Your task to perform on an android device: turn off notifications settings in the gmail app Image 0: 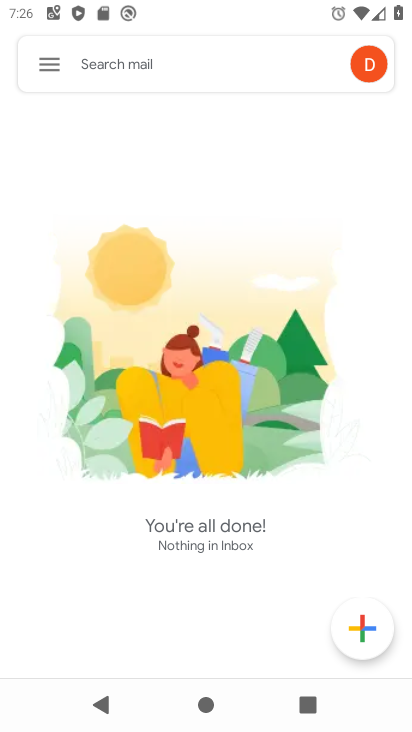
Step 0: press home button
Your task to perform on an android device: turn off notifications settings in the gmail app Image 1: 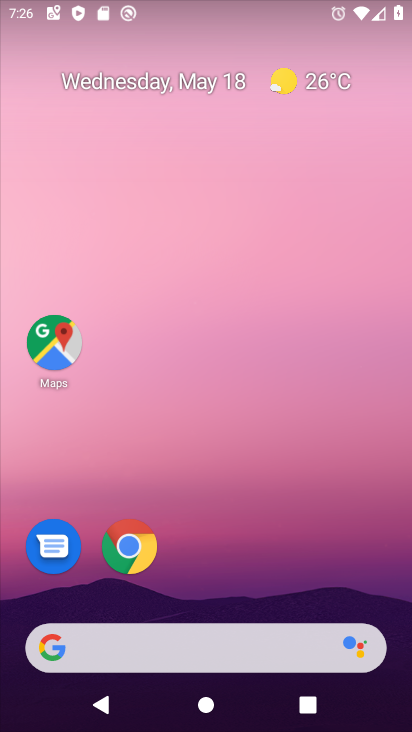
Step 1: drag from (379, 609) to (307, 60)
Your task to perform on an android device: turn off notifications settings in the gmail app Image 2: 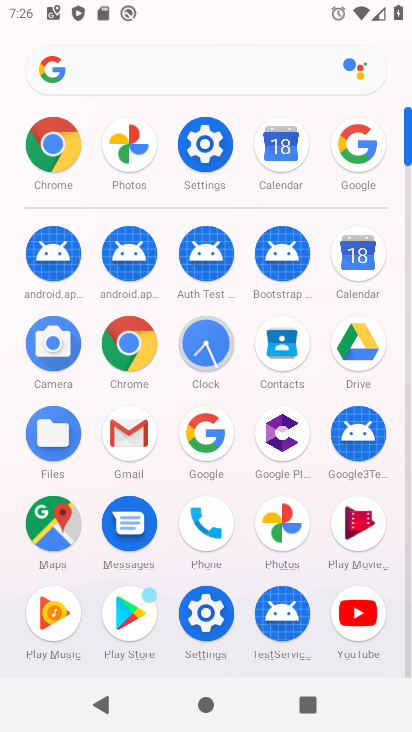
Step 2: click (127, 436)
Your task to perform on an android device: turn off notifications settings in the gmail app Image 3: 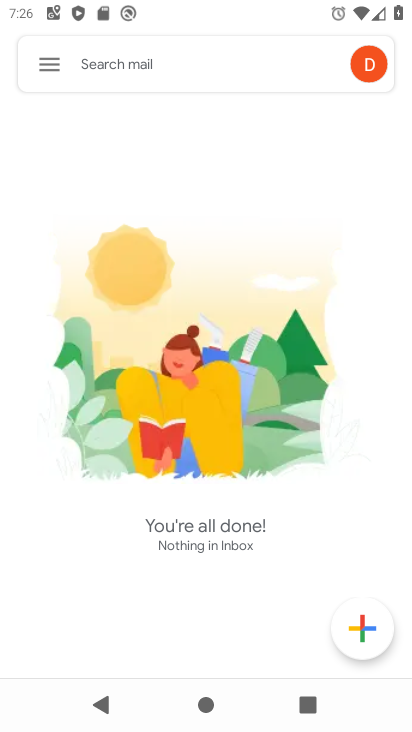
Step 3: click (59, 59)
Your task to perform on an android device: turn off notifications settings in the gmail app Image 4: 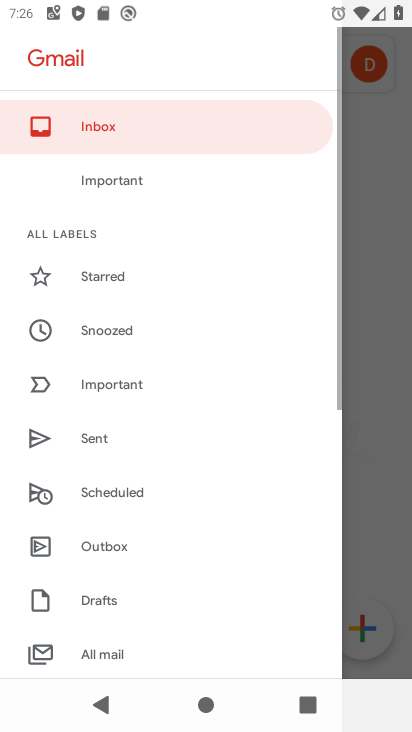
Step 4: drag from (141, 628) to (128, 55)
Your task to perform on an android device: turn off notifications settings in the gmail app Image 5: 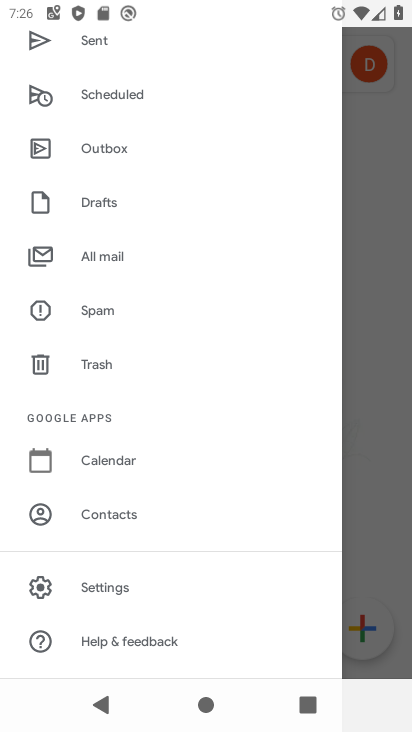
Step 5: click (99, 588)
Your task to perform on an android device: turn off notifications settings in the gmail app Image 6: 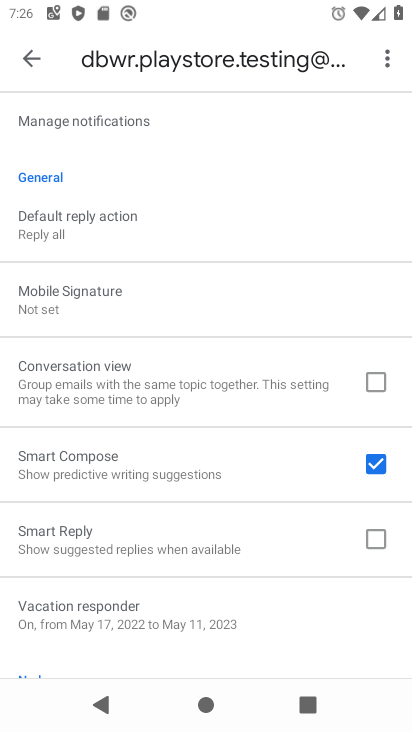
Step 6: drag from (161, 195) to (246, 619)
Your task to perform on an android device: turn off notifications settings in the gmail app Image 7: 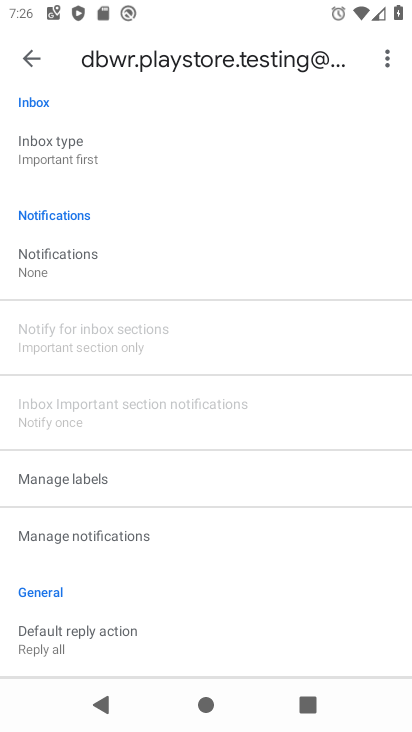
Step 7: click (147, 268)
Your task to perform on an android device: turn off notifications settings in the gmail app Image 8: 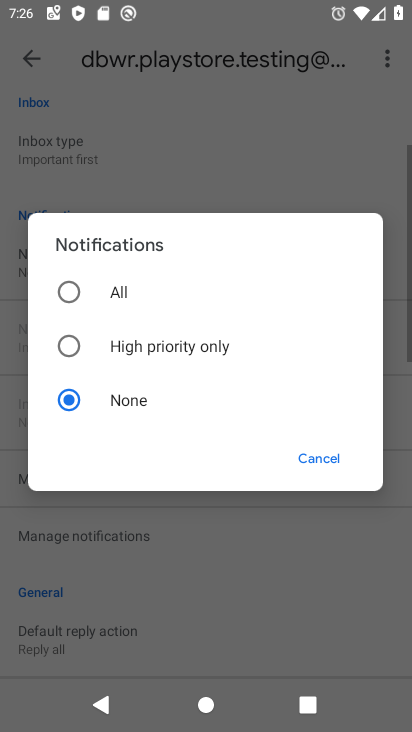
Step 8: click (82, 407)
Your task to perform on an android device: turn off notifications settings in the gmail app Image 9: 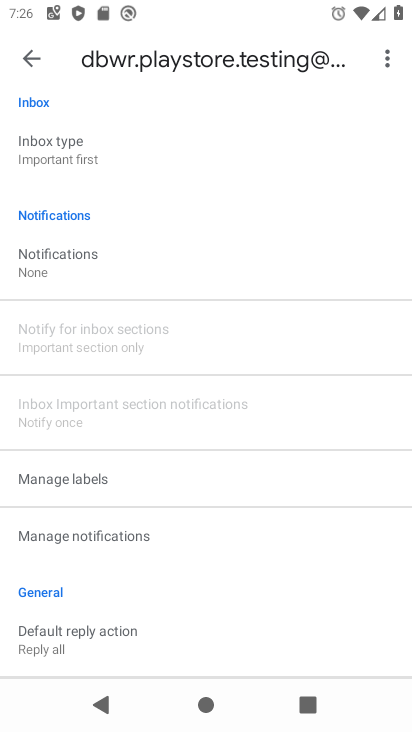
Step 9: task complete